Your task to perform on an android device: check android version Image 0: 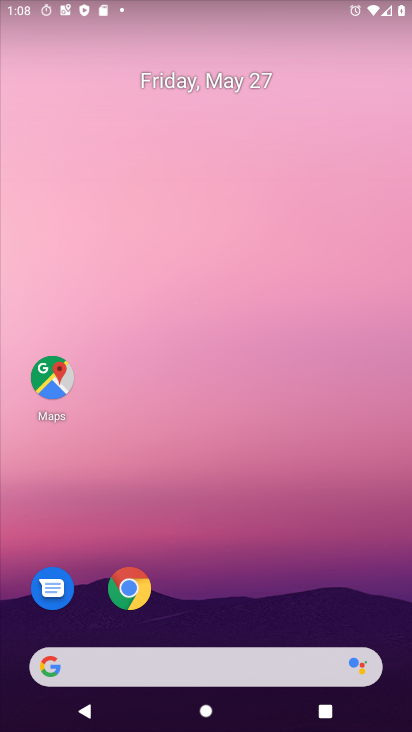
Step 0: drag from (212, 506) to (37, 394)
Your task to perform on an android device: check android version Image 1: 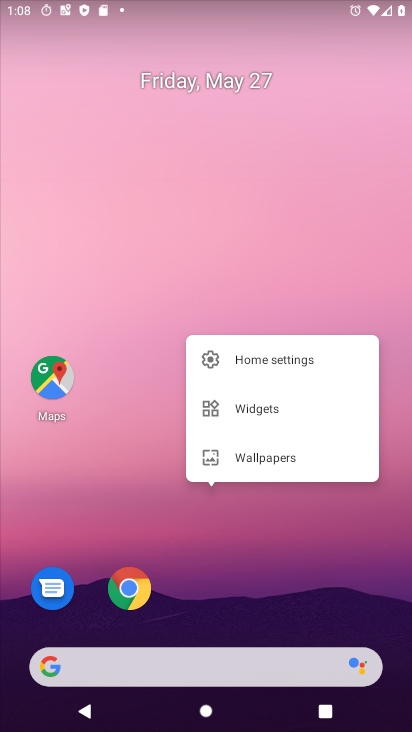
Step 1: click (222, 596)
Your task to perform on an android device: check android version Image 2: 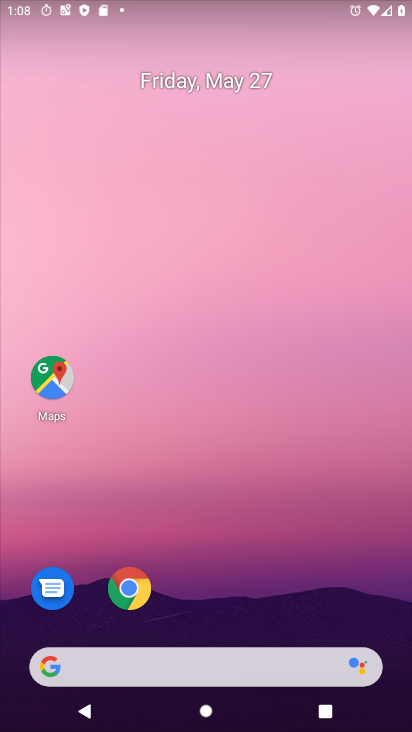
Step 2: click (188, 77)
Your task to perform on an android device: check android version Image 3: 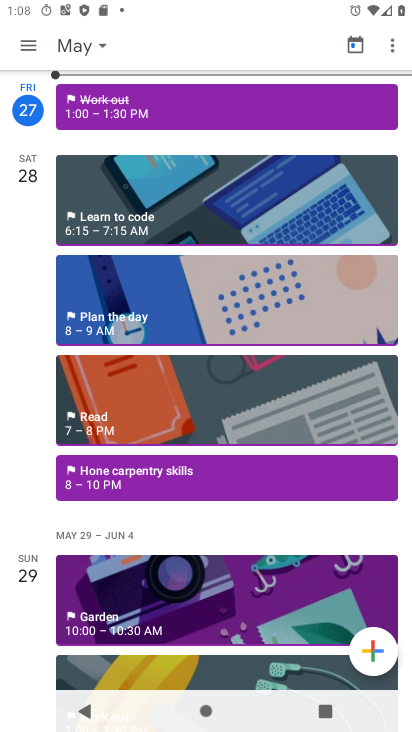
Step 3: press home button
Your task to perform on an android device: check android version Image 4: 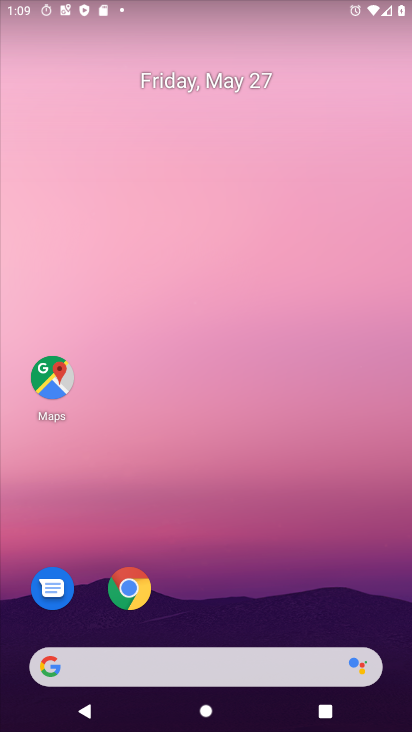
Step 4: drag from (227, 624) to (180, 39)
Your task to perform on an android device: check android version Image 5: 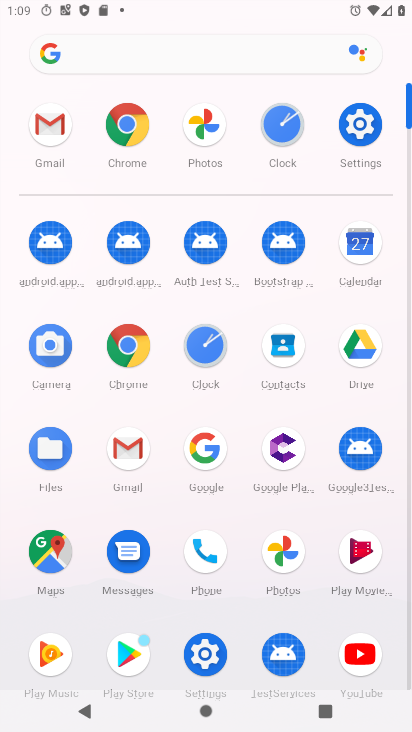
Step 5: click (203, 661)
Your task to perform on an android device: check android version Image 6: 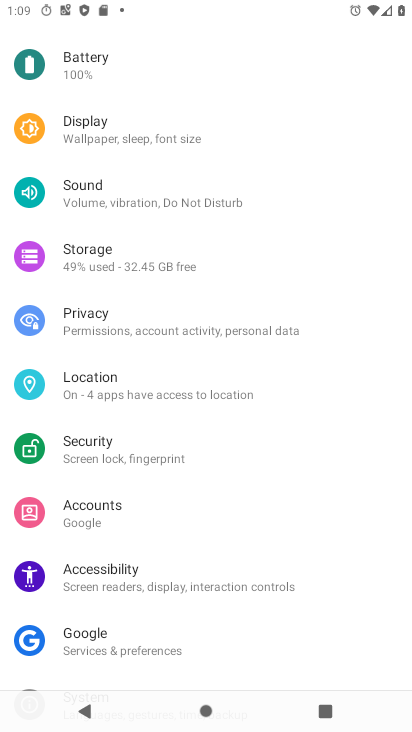
Step 6: drag from (196, 640) to (185, 48)
Your task to perform on an android device: check android version Image 7: 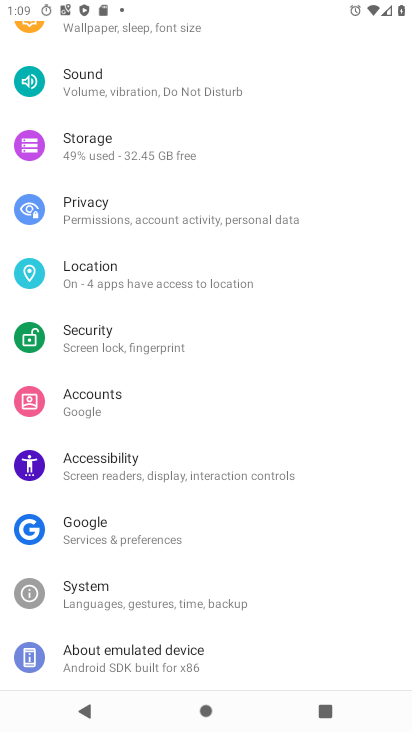
Step 7: click (176, 659)
Your task to perform on an android device: check android version Image 8: 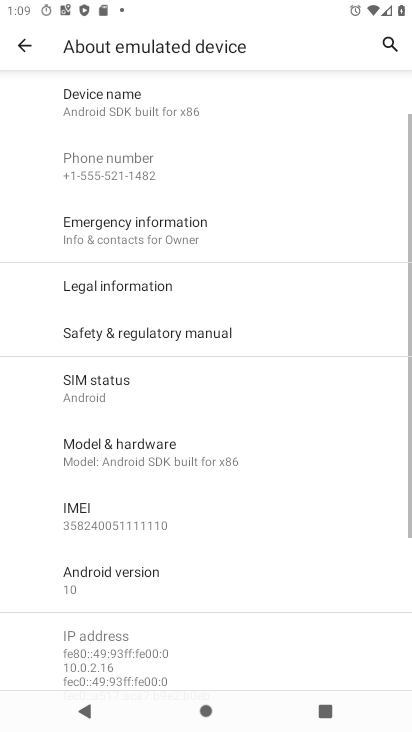
Step 8: click (137, 585)
Your task to perform on an android device: check android version Image 9: 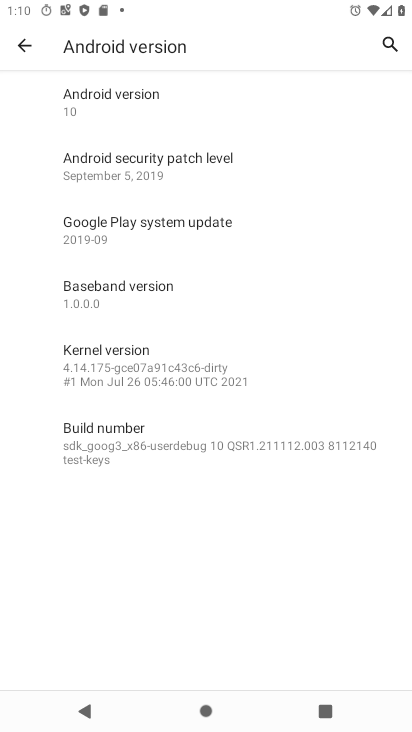
Step 9: click (159, 110)
Your task to perform on an android device: check android version Image 10: 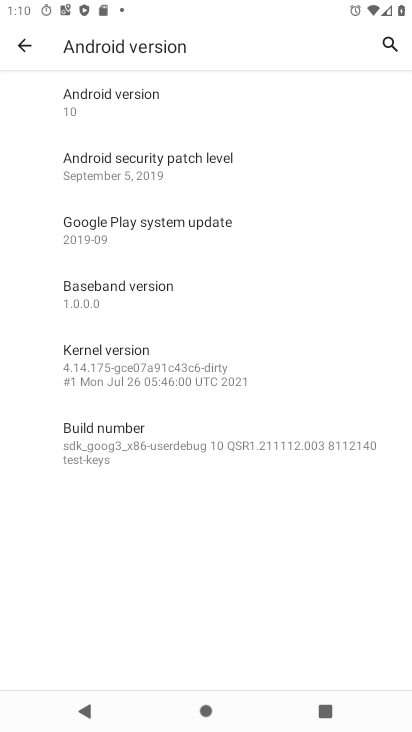
Step 10: task complete